Your task to perform on an android device: turn off airplane mode Image 0: 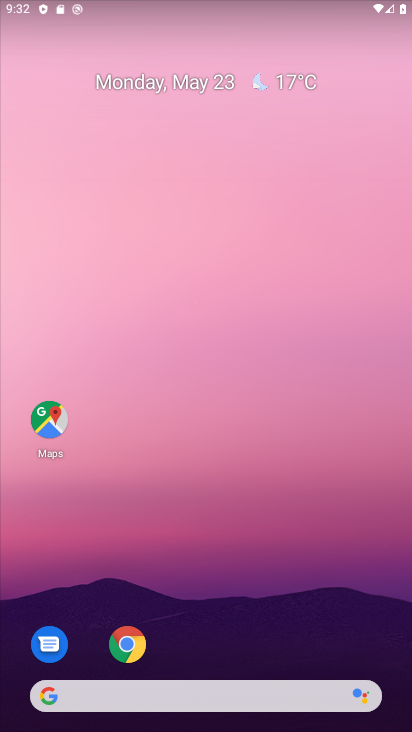
Step 0: drag from (237, 554) to (245, 384)
Your task to perform on an android device: turn off airplane mode Image 1: 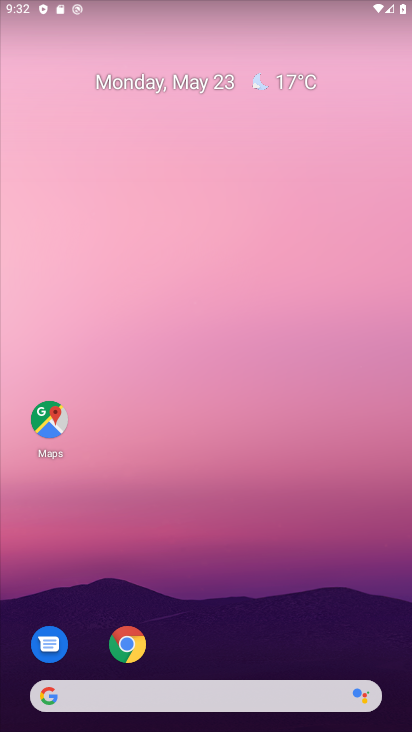
Step 1: drag from (240, 659) to (280, 388)
Your task to perform on an android device: turn off airplane mode Image 2: 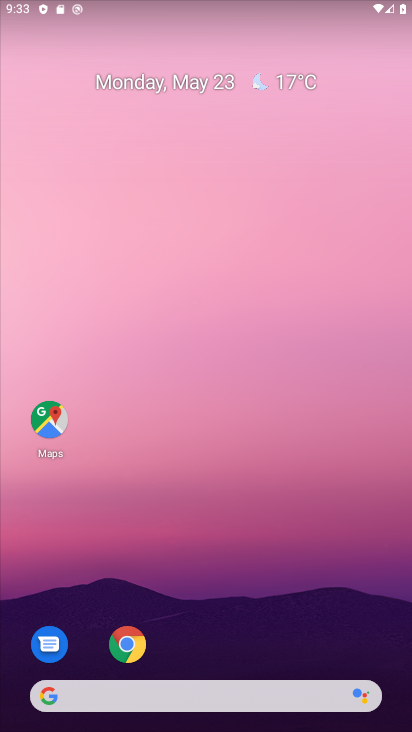
Step 2: drag from (219, 666) to (250, 327)
Your task to perform on an android device: turn off airplane mode Image 3: 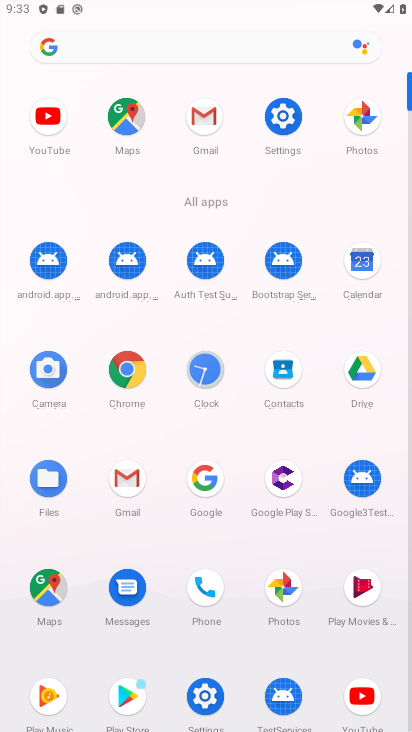
Step 3: click (272, 122)
Your task to perform on an android device: turn off airplane mode Image 4: 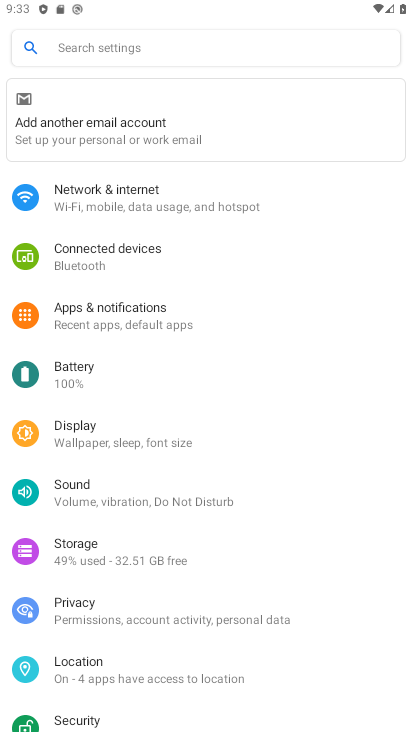
Step 4: click (123, 201)
Your task to perform on an android device: turn off airplane mode Image 5: 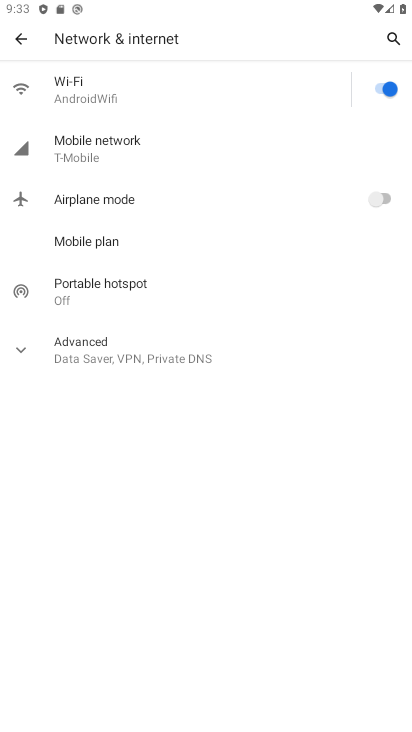
Step 5: task complete